Your task to perform on an android device: Open Chrome and go to the settings page Image 0: 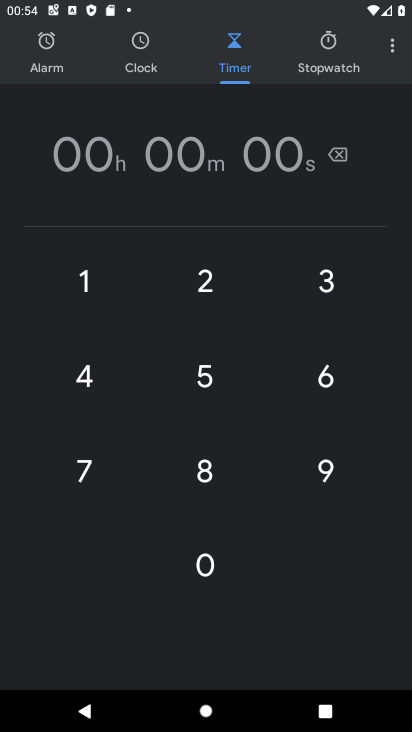
Step 0: press home button
Your task to perform on an android device: Open Chrome and go to the settings page Image 1: 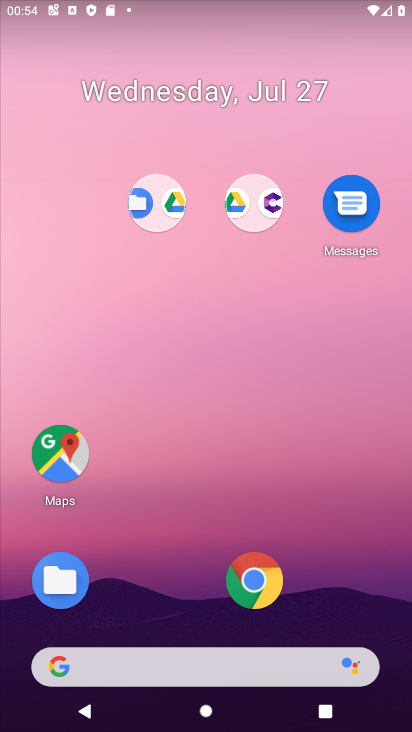
Step 1: click (257, 587)
Your task to perform on an android device: Open Chrome and go to the settings page Image 2: 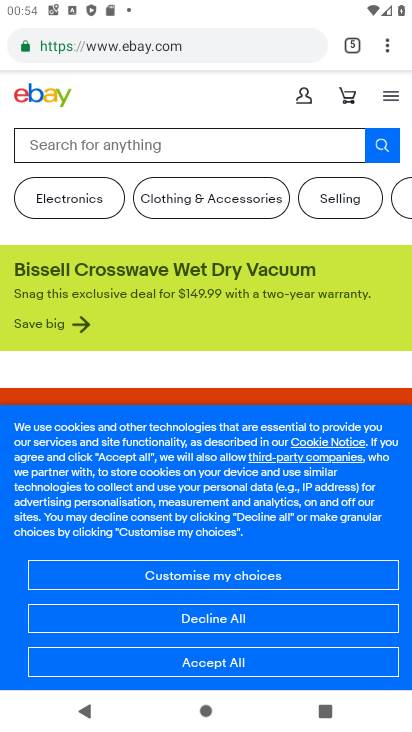
Step 2: click (395, 33)
Your task to perform on an android device: Open Chrome and go to the settings page Image 3: 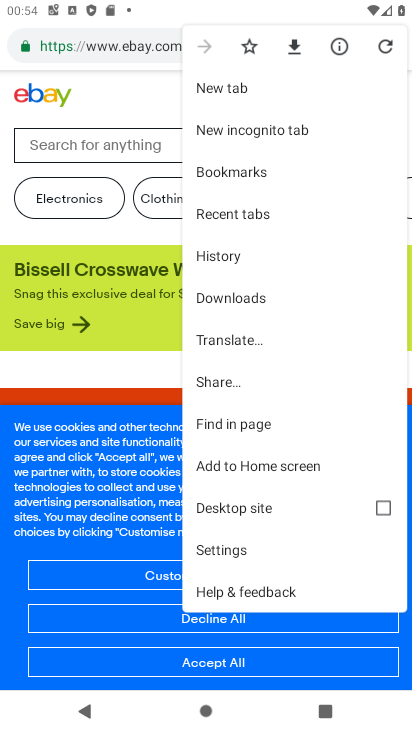
Step 3: click (228, 541)
Your task to perform on an android device: Open Chrome and go to the settings page Image 4: 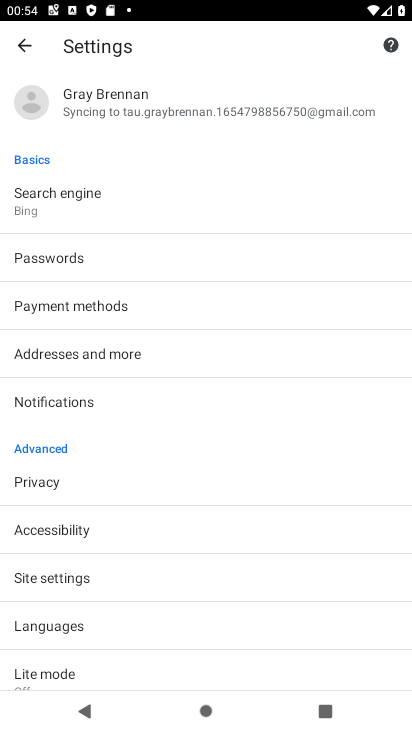
Step 4: task complete